Your task to perform on an android device: Do I have any events today? Image 0: 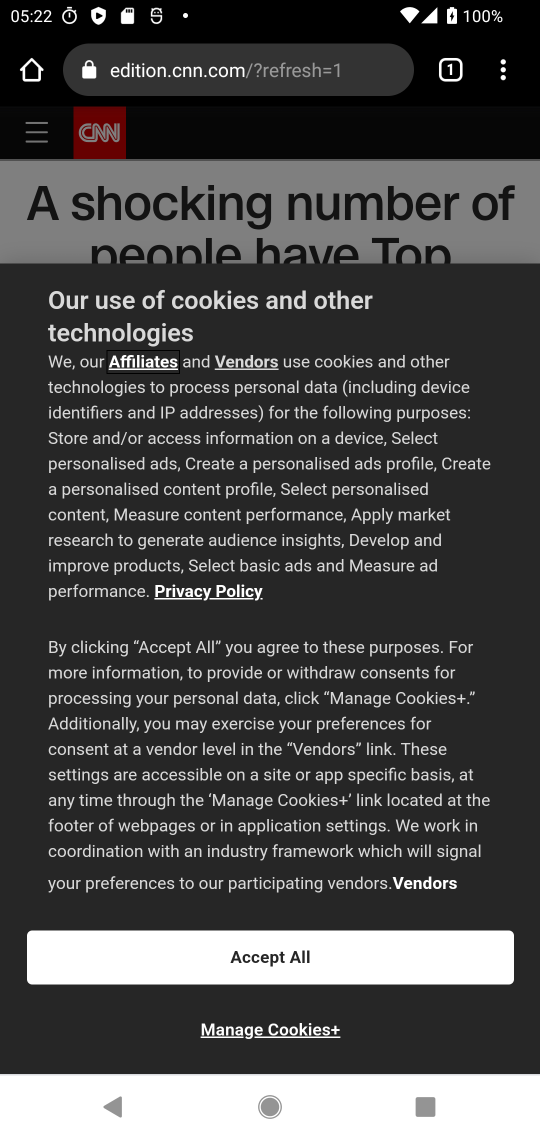
Step 0: press home button
Your task to perform on an android device: Do I have any events today? Image 1: 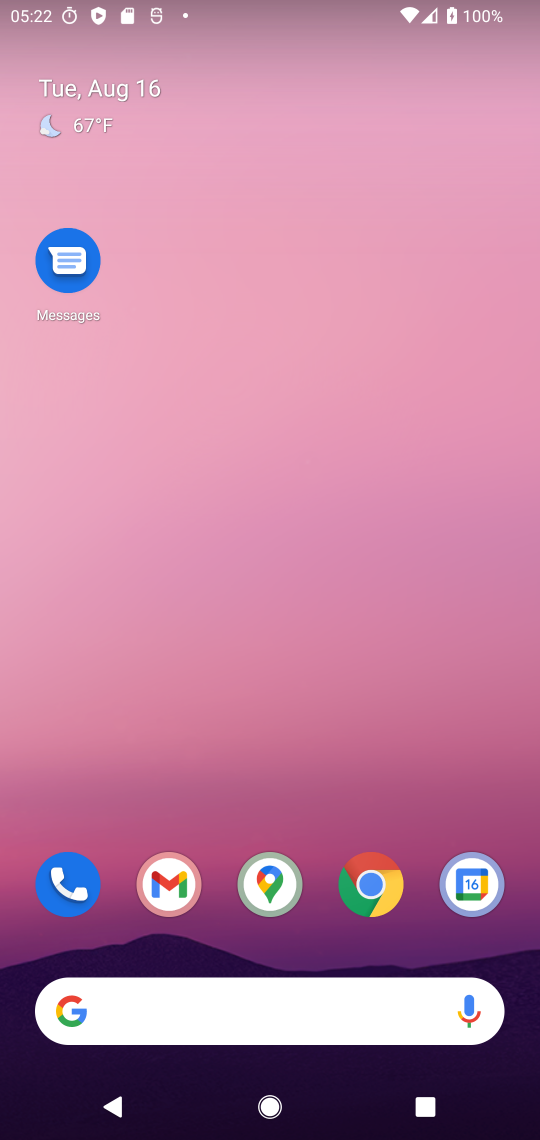
Step 1: drag from (52, 1083) to (281, 319)
Your task to perform on an android device: Do I have any events today? Image 2: 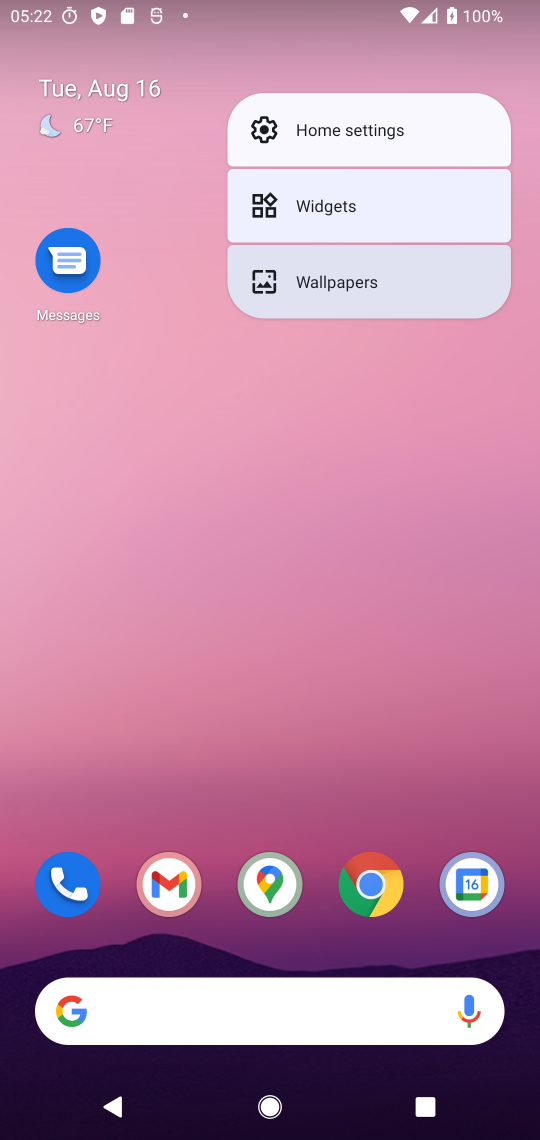
Step 2: click (30, 1079)
Your task to perform on an android device: Do I have any events today? Image 3: 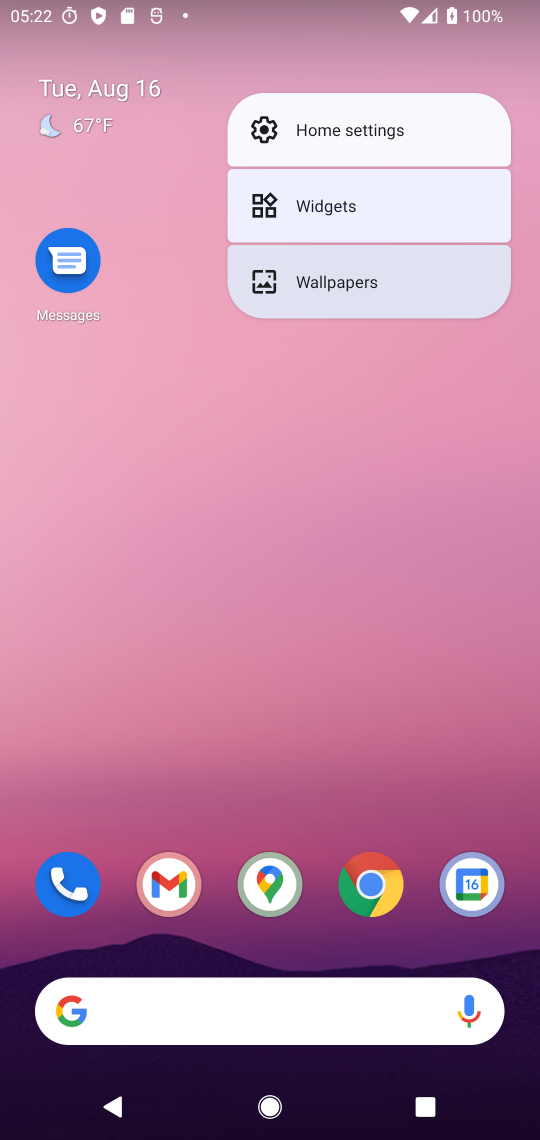
Step 3: task complete